Your task to perform on an android device: How do I get to the nearest Burger King? Image 0: 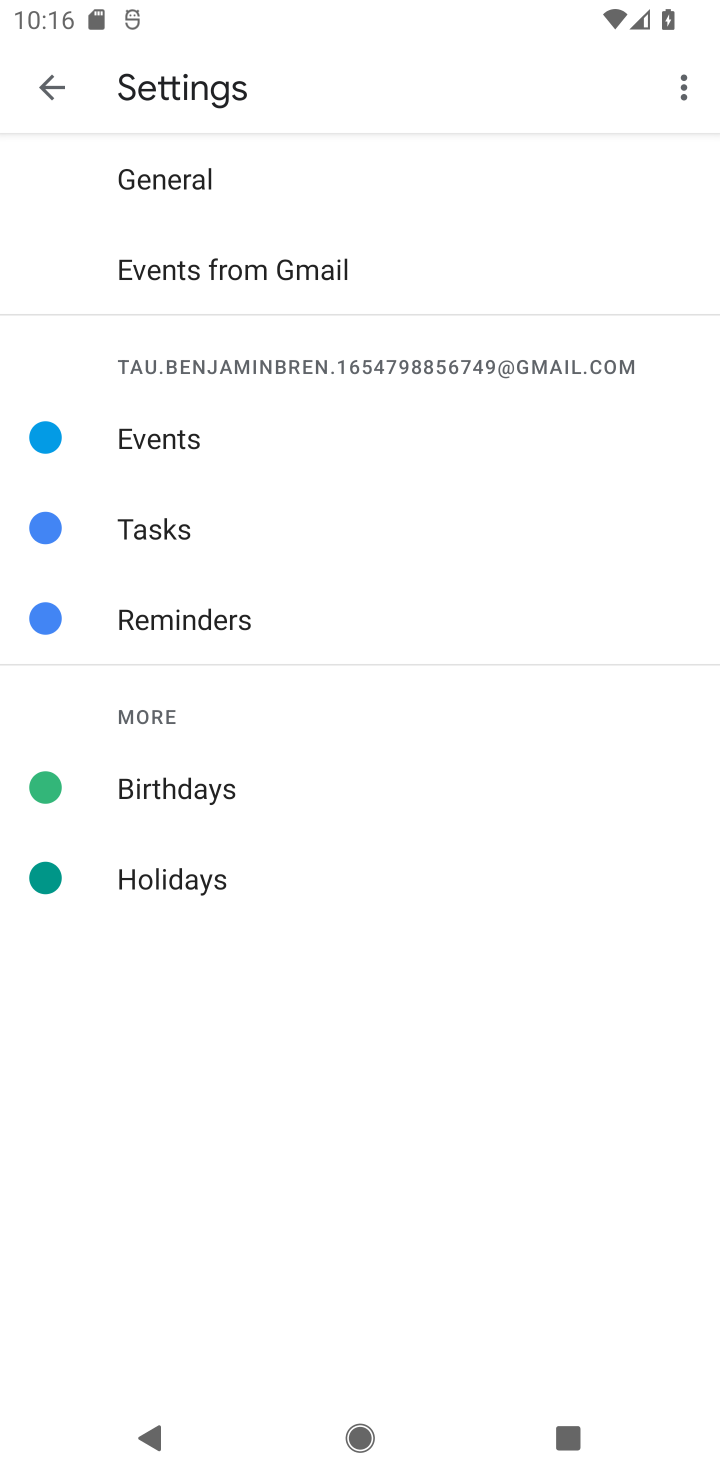
Step 0: press home button
Your task to perform on an android device: How do I get to the nearest Burger King? Image 1: 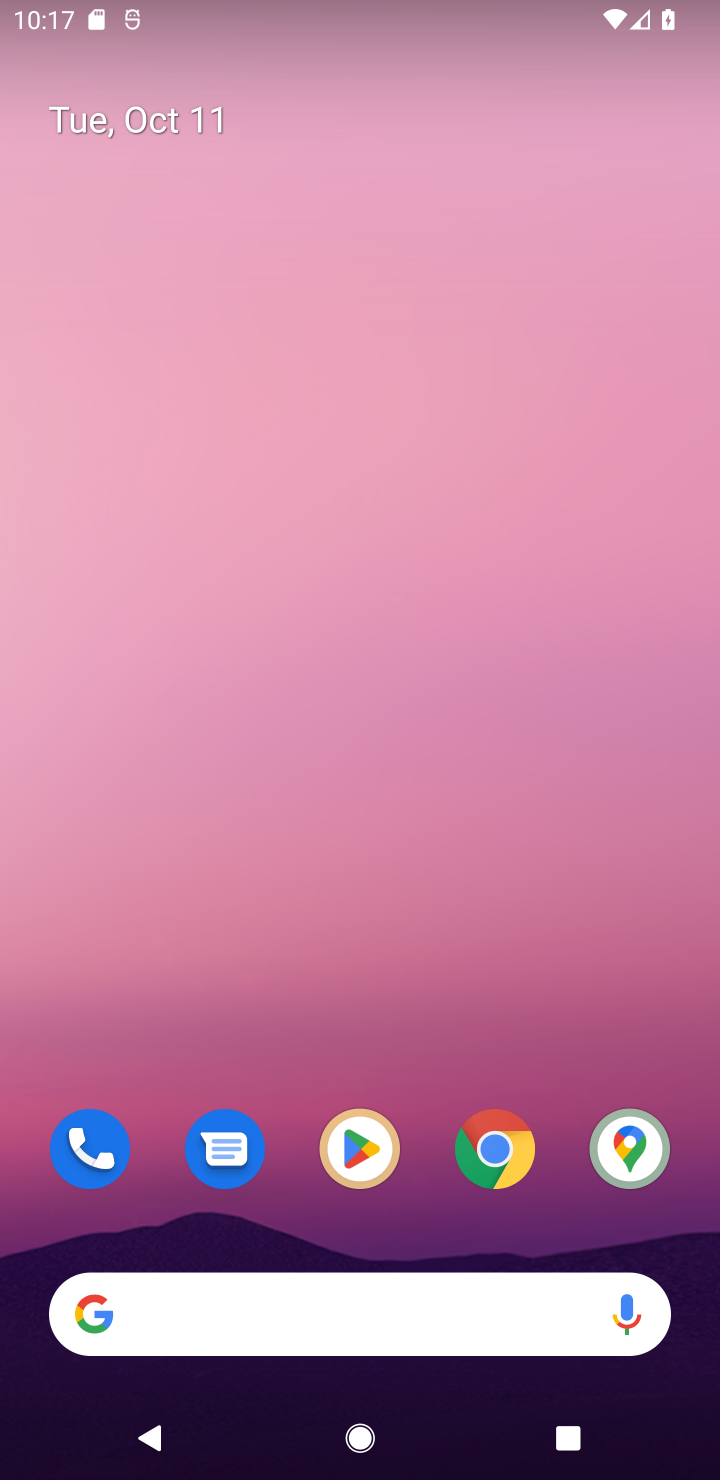
Step 1: click (386, 1309)
Your task to perform on an android device: How do I get to the nearest Burger King? Image 2: 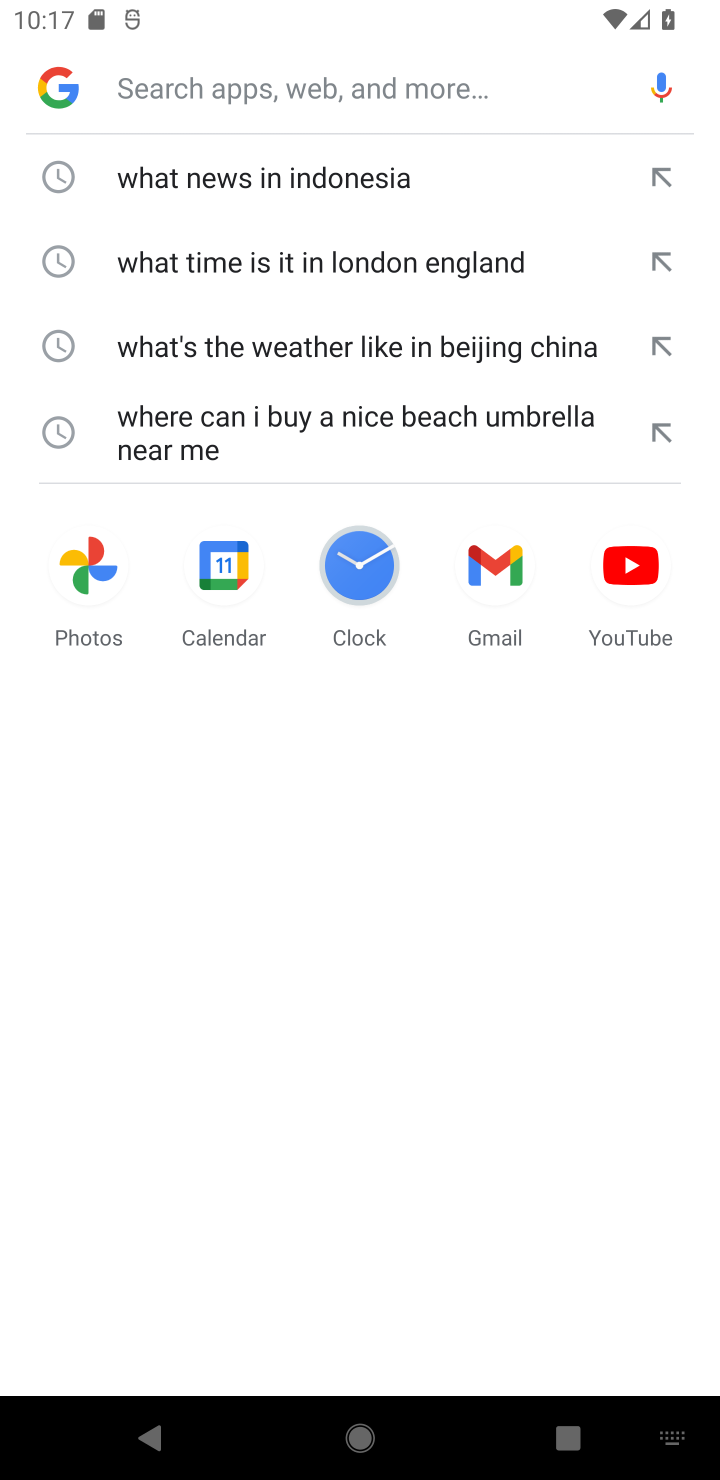
Step 2: click (386, 1309)
Your task to perform on an android device: How do I get to the nearest Burger King? Image 3: 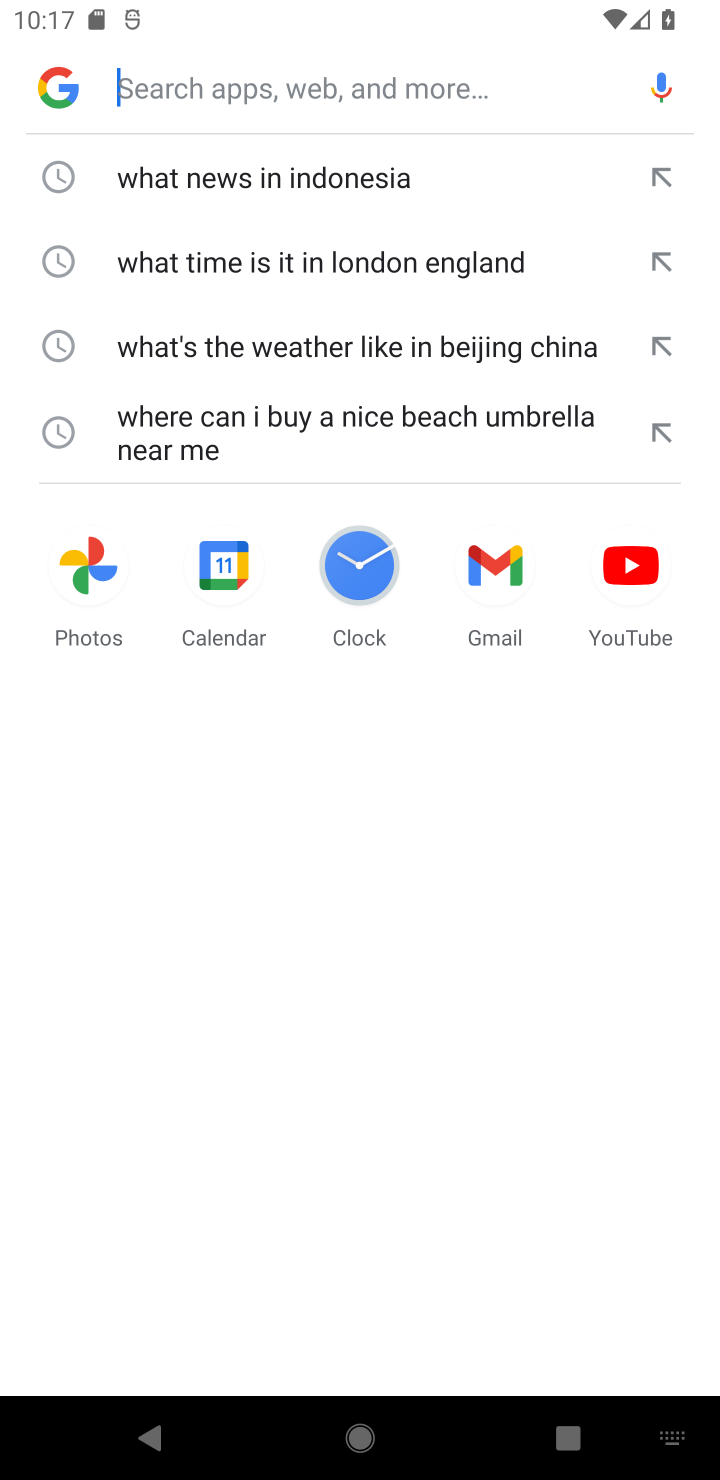
Step 3: type "How do I get to the nearest Burger King?"
Your task to perform on an android device: How do I get to the nearest Burger King? Image 4: 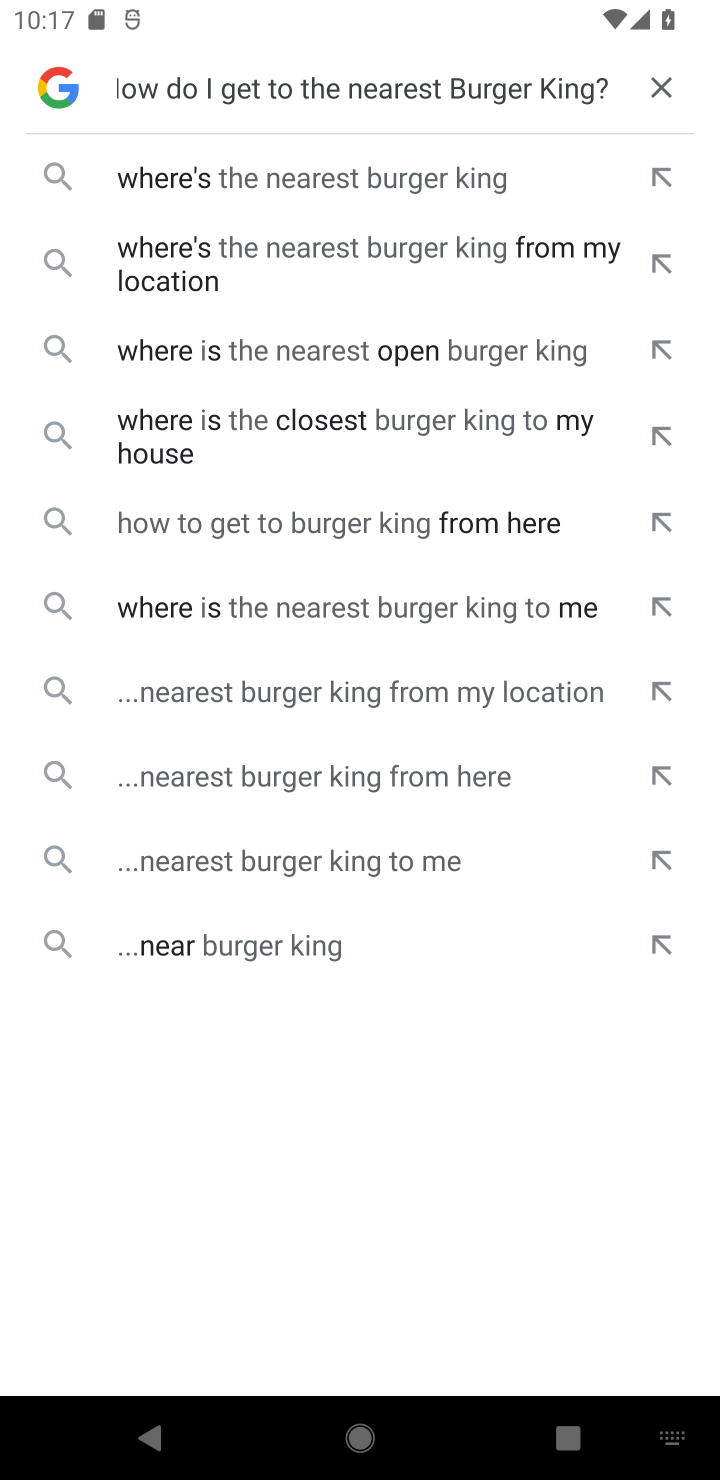
Step 4: click (423, 187)
Your task to perform on an android device: How do I get to the nearest Burger King? Image 5: 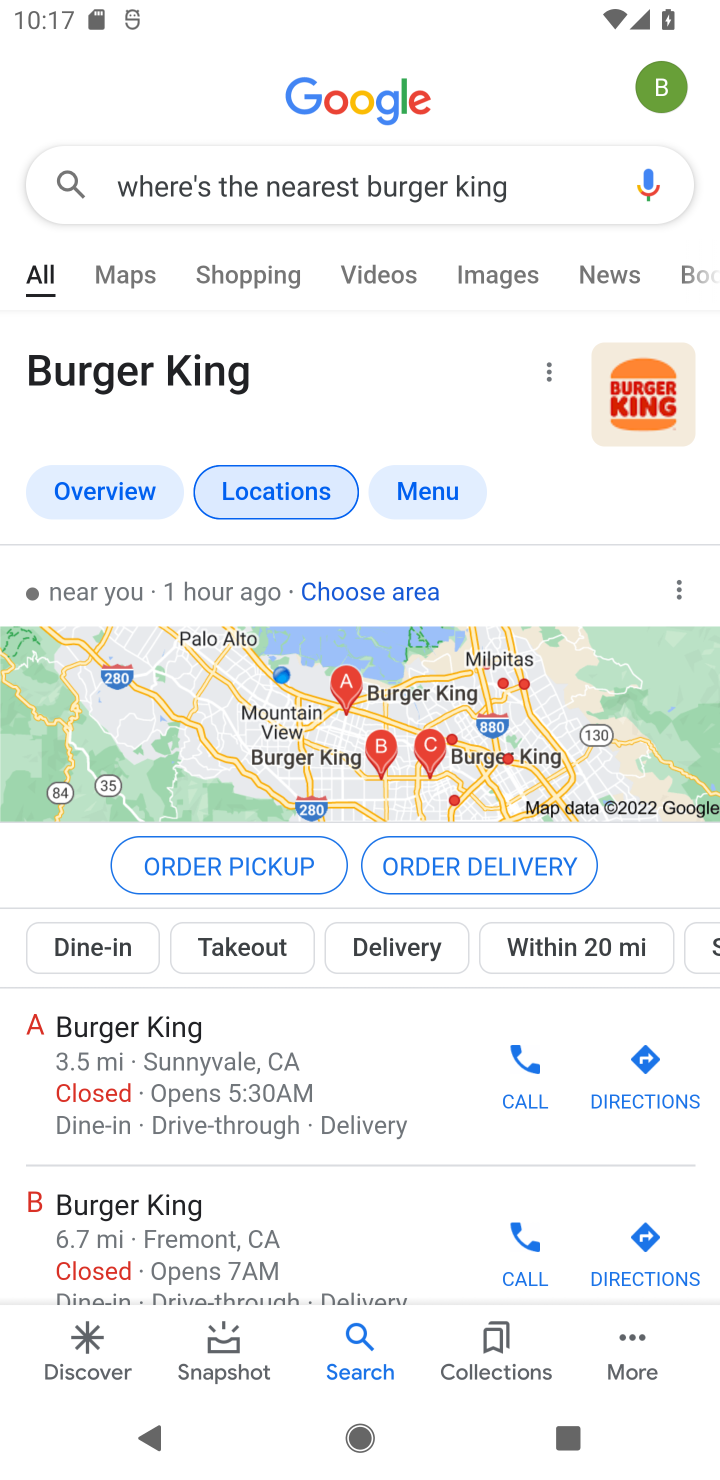
Step 5: drag from (389, 1229) to (384, 581)
Your task to perform on an android device: How do I get to the nearest Burger King? Image 6: 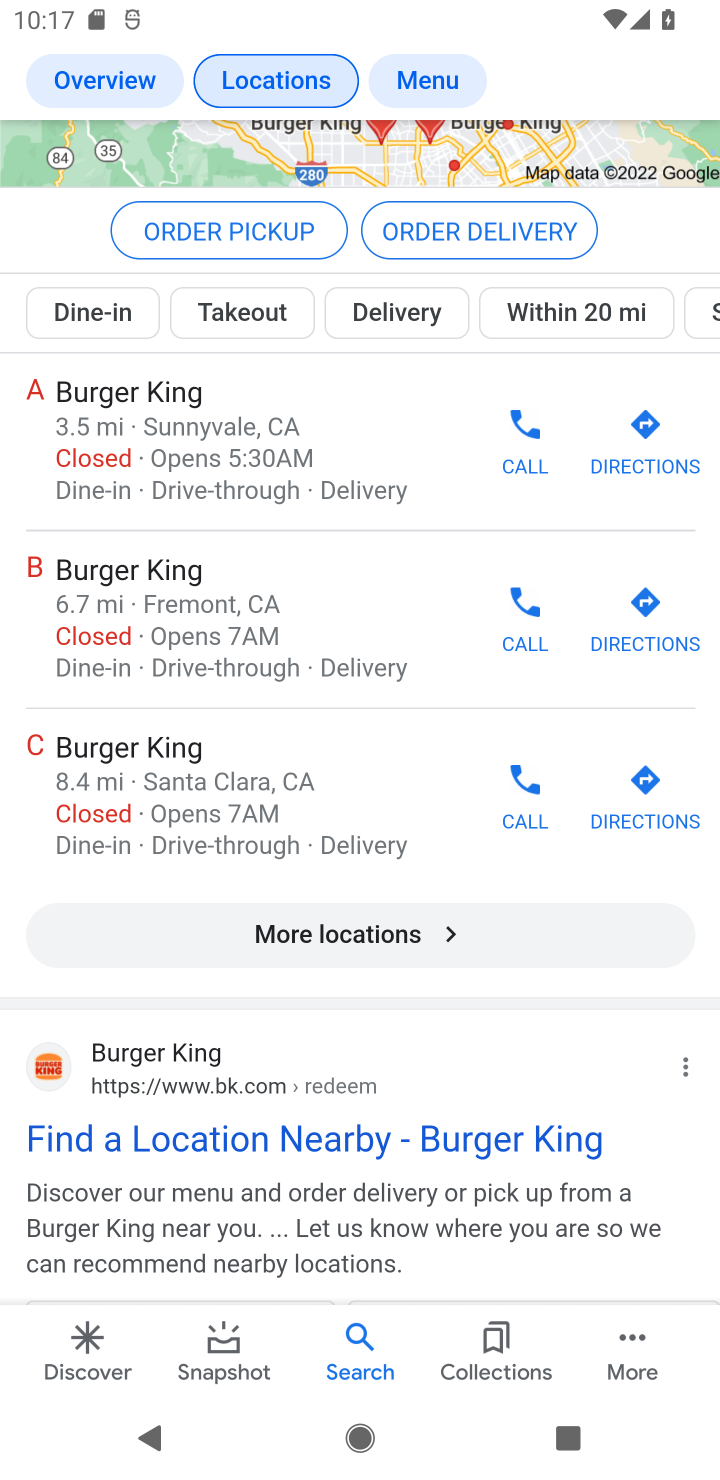
Step 6: click (427, 182)
Your task to perform on an android device: How do I get to the nearest Burger King? Image 7: 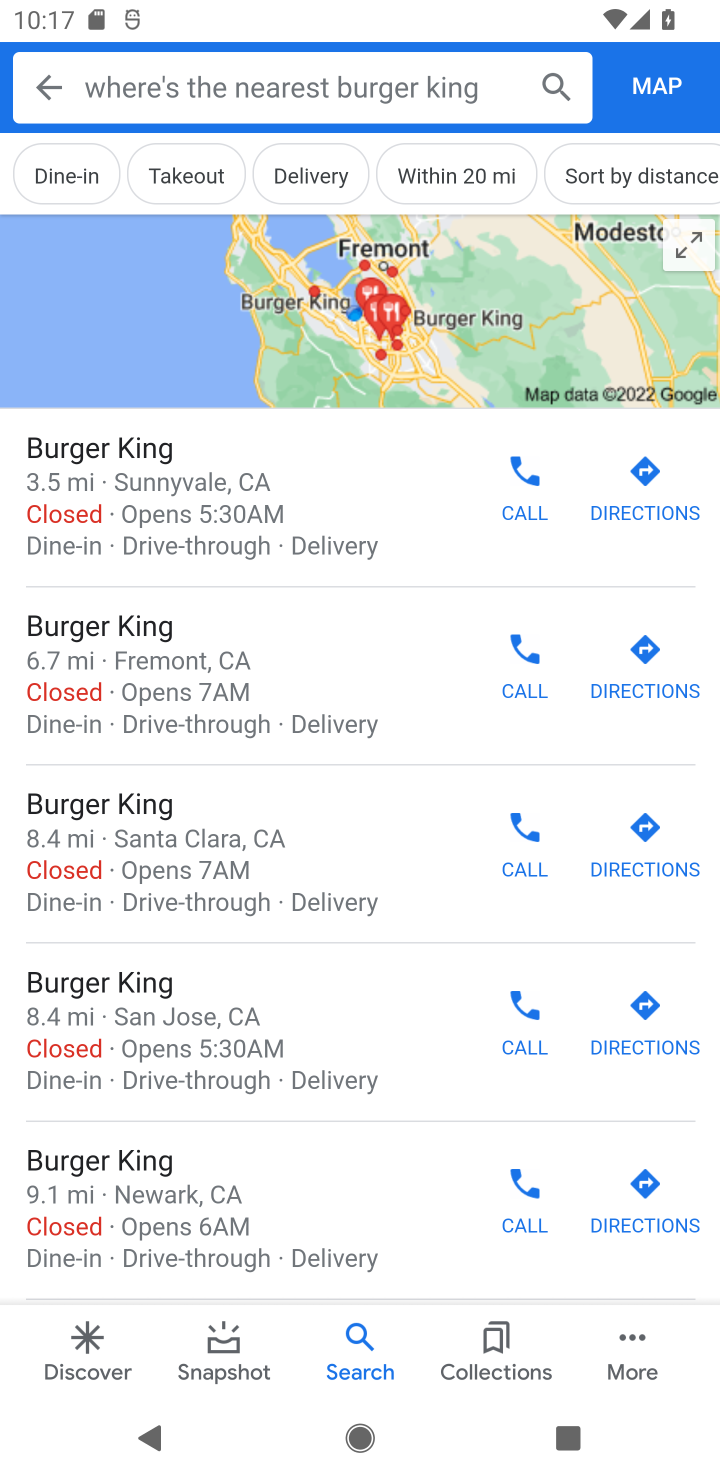
Step 7: task complete